Your task to perform on an android device: change the clock display to digital Image 0: 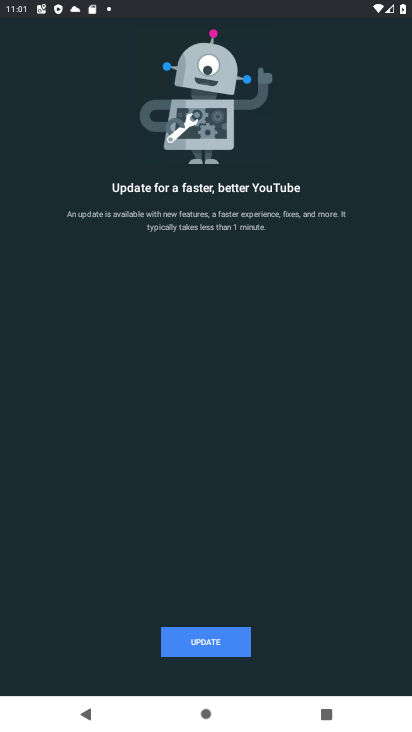
Step 0: press back button
Your task to perform on an android device: change the clock display to digital Image 1: 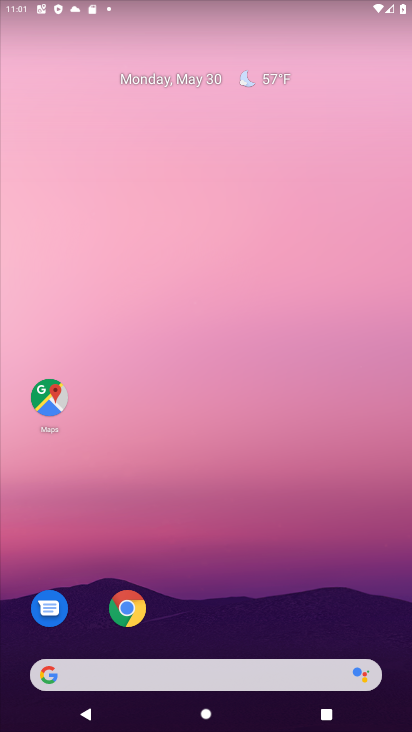
Step 1: drag from (249, 452) to (185, 70)
Your task to perform on an android device: change the clock display to digital Image 2: 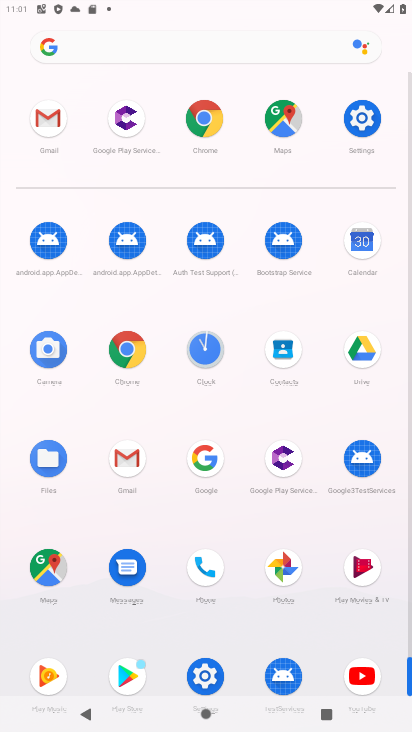
Step 2: drag from (11, 606) to (8, 339)
Your task to perform on an android device: change the clock display to digital Image 3: 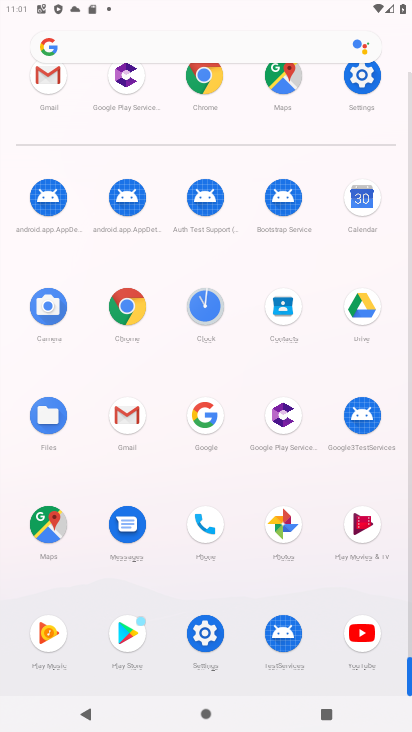
Step 3: click (203, 300)
Your task to perform on an android device: change the clock display to digital Image 4: 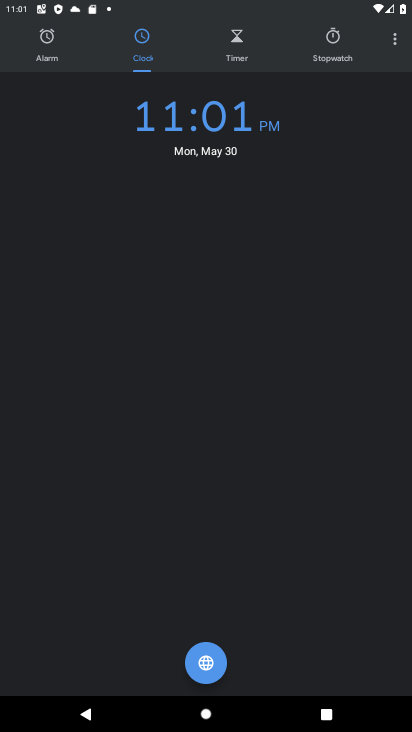
Step 4: task complete